Your task to perform on an android device: turn on the 24-hour format for clock Image 0: 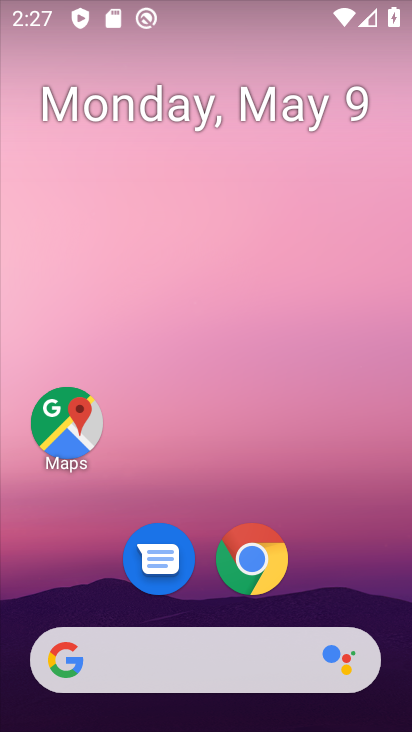
Step 0: drag from (232, 449) to (237, 0)
Your task to perform on an android device: turn on the 24-hour format for clock Image 1: 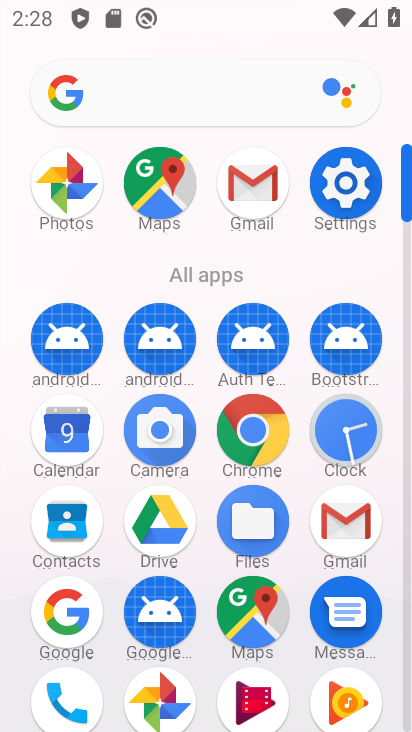
Step 1: click (344, 431)
Your task to perform on an android device: turn on the 24-hour format for clock Image 2: 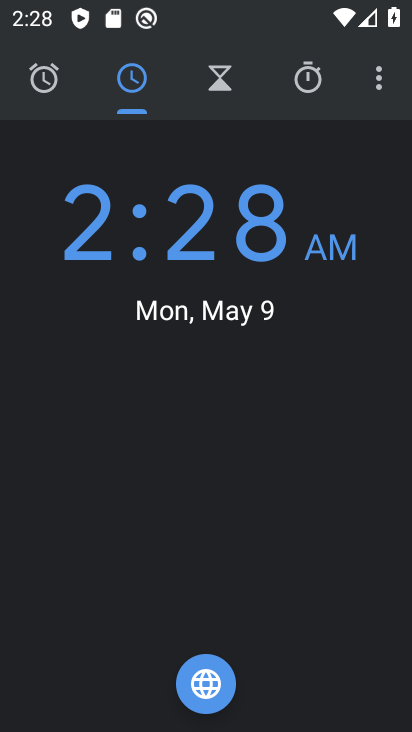
Step 2: click (379, 74)
Your task to perform on an android device: turn on the 24-hour format for clock Image 3: 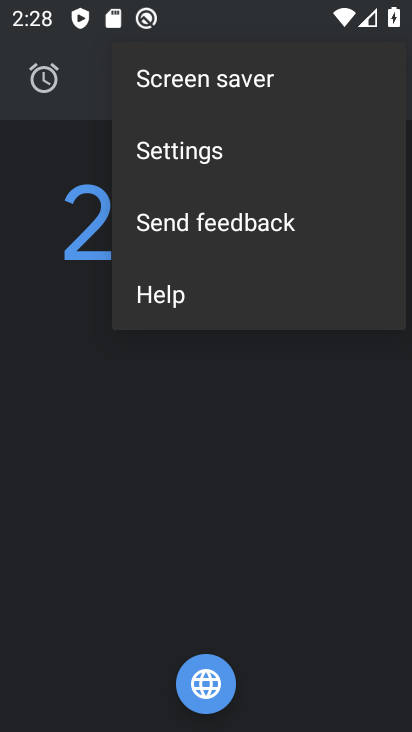
Step 3: click (196, 159)
Your task to perform on an android device: turn on the 24-hour format for clock Image 4: 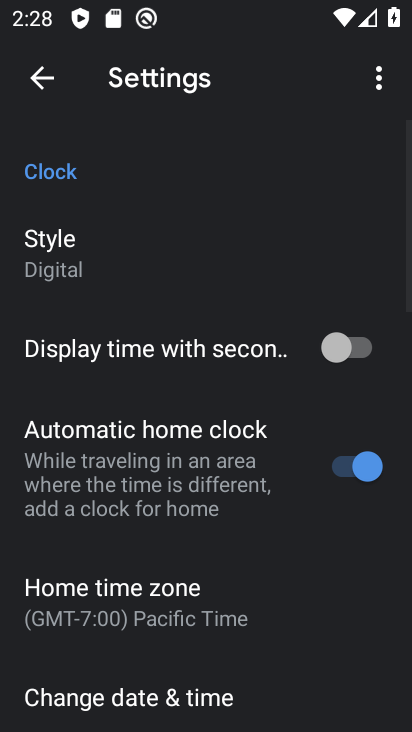
Step 4: drag from (215, 518) to (238, 402)
Your task to perform on an android device: turn on the 24-hour format for clock Image 5: 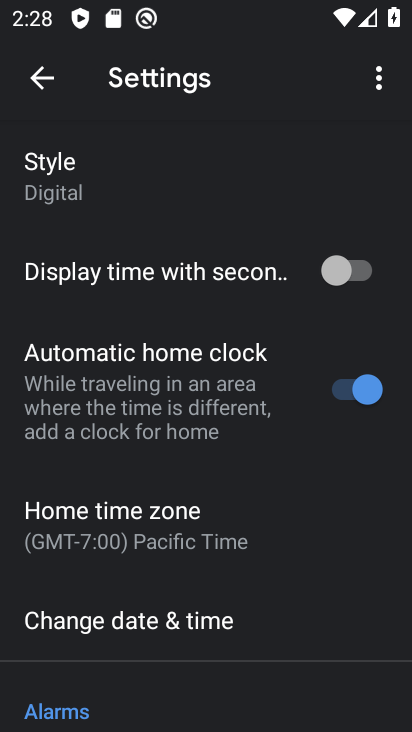
Step 5: click (217, 617)
Your task to perform on an android device: turn on the 24-hour format for clock Image 6: 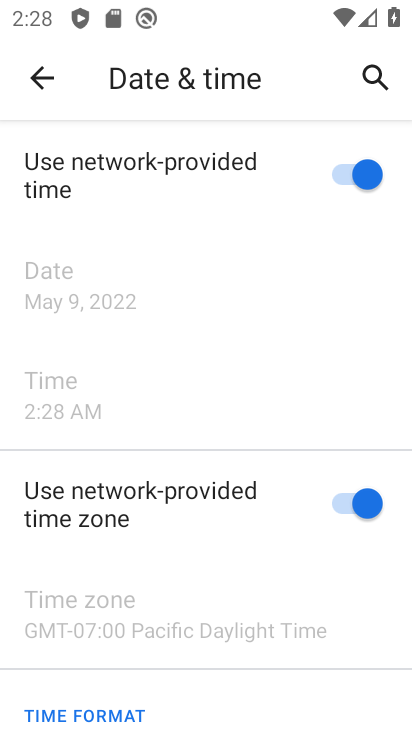
Step 6: drag from (202, 589) to (213, 348)
Your task to perform on an android device: turn on the 24-hour format for clock Image 7: 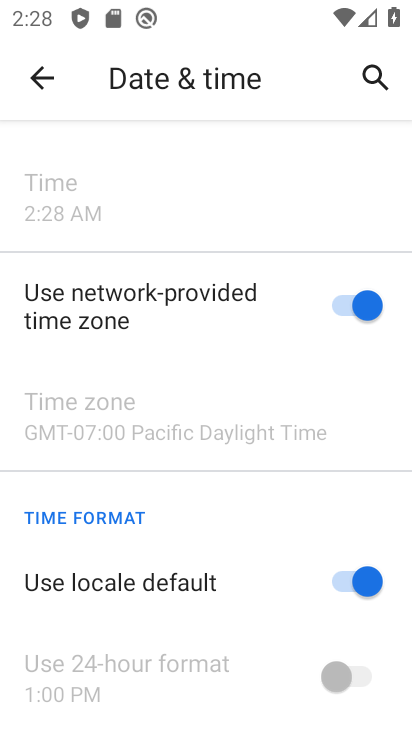
Step 7: click (365, 583)
Your task to perform on an android device: turn on the 24-hour format for clock Image 8: 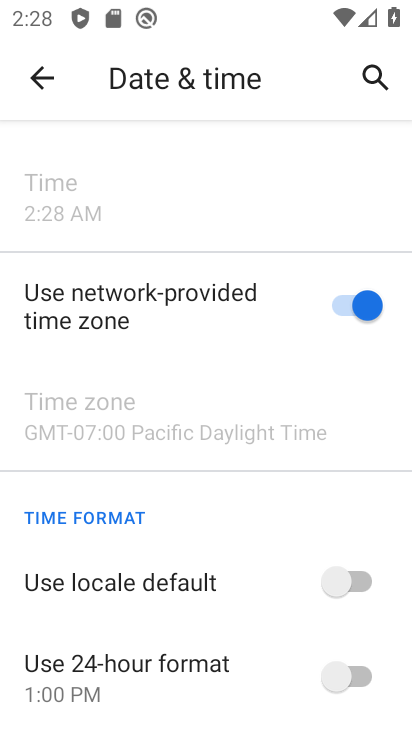
Step 8: click (333, 678)
Your task to perform on an android device: turn on the 24-hour format for clock Image 9: 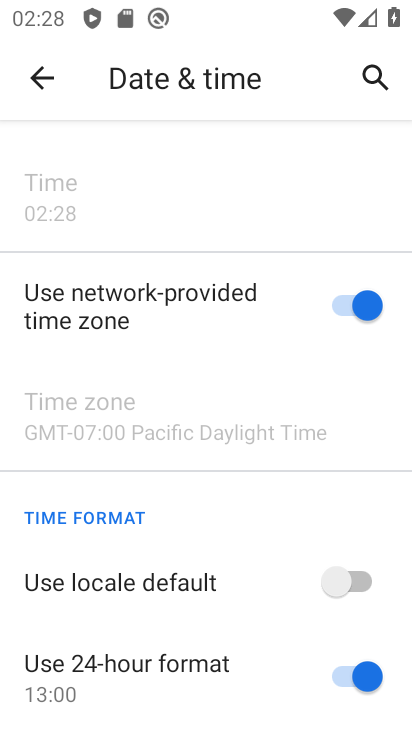
Step 9: task complete